Your task to perform on an android device: Search for Italian restaurants on Maps Image 0: 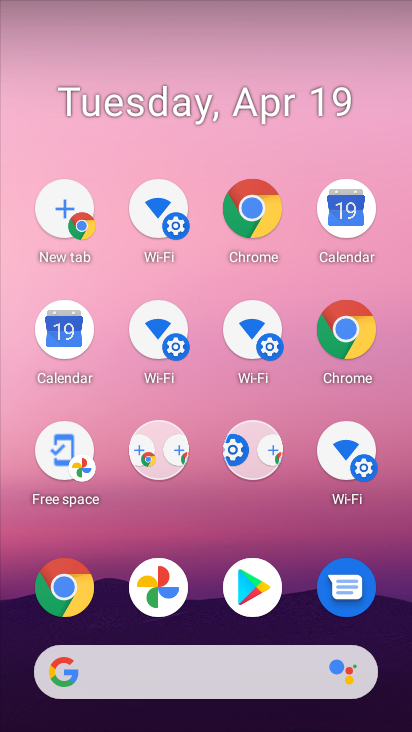
Step 0: click (70, 573)
Your task to perform on an android device: Search for Italian restaurants on Maps Image 1: 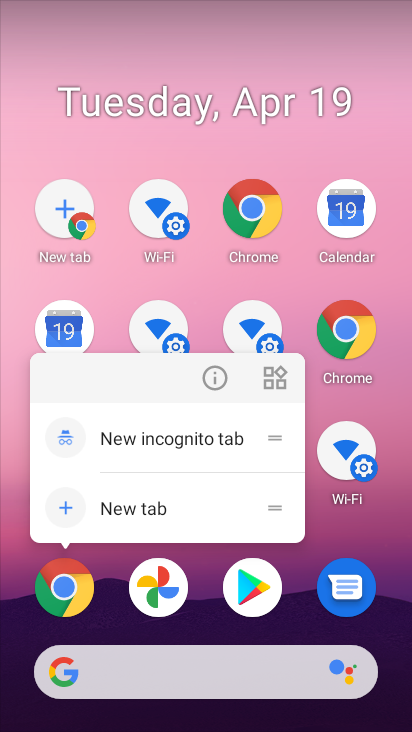
Step 1: click (70, 573)
Your task to perform on an android device: Search for Italian restaurants on Maps Image 2: 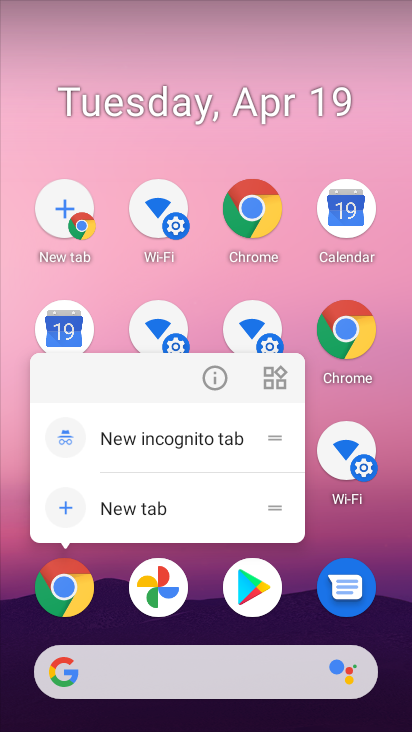
Step 2: click (56, 593)
Your task to perform on an android device: Search for Italian restaurants on Maps Image 3: 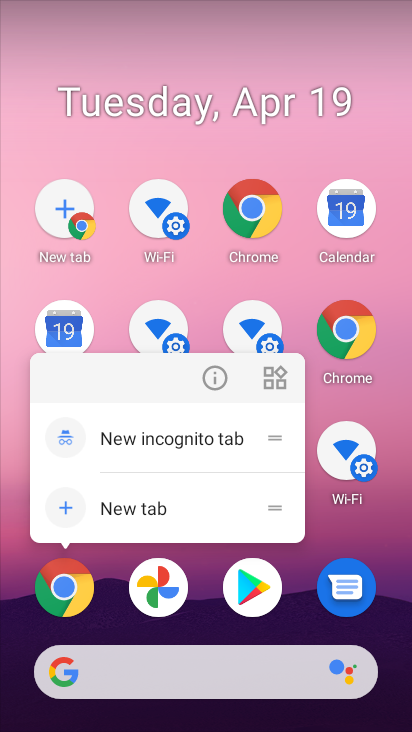
Step 3: click (70, 601)
Your task to perform on an android device: Search for Italian restaurants on Maps Image 4: 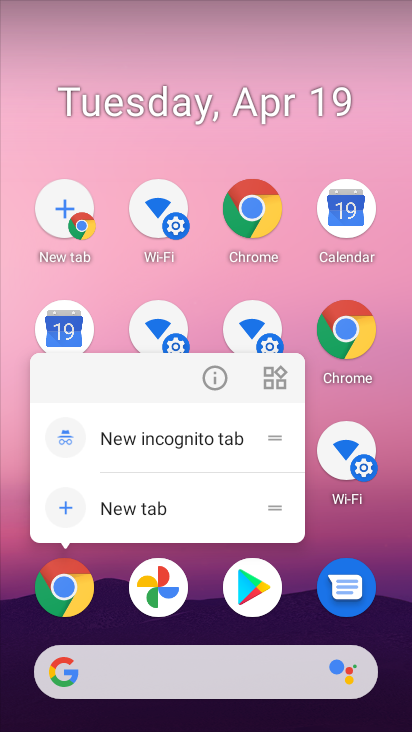
Step 4: click (349, 327)
Your task to perform on an android device: Search for Italian restaurants on Maps Image 5: 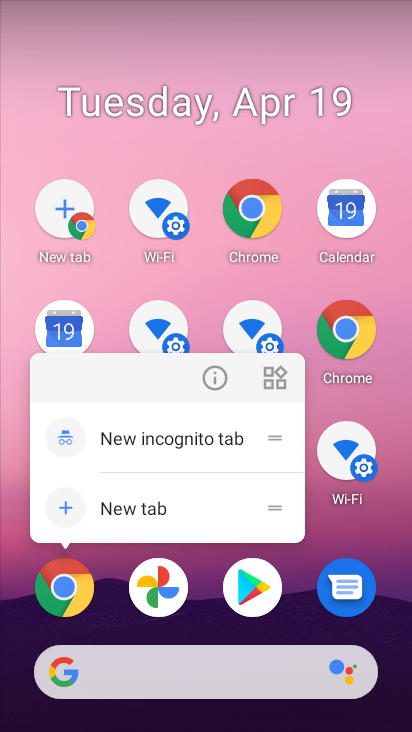
Step 5: click (356, 337)
Your task to perform on an android device: Search for Italian restaurants on Maps Image 6: 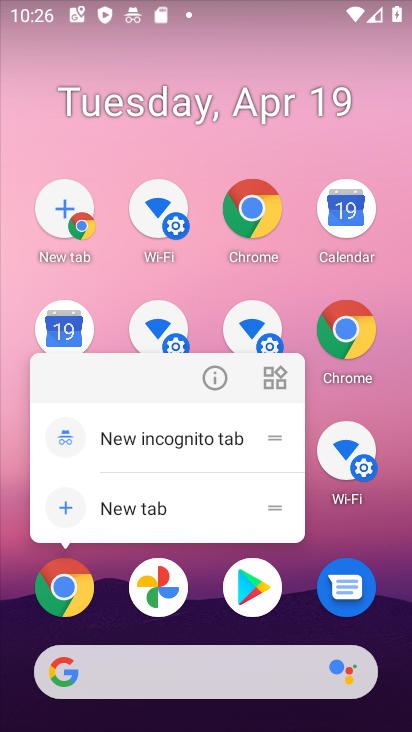
Step 6: click (357, 338)
Your task to perform on an android device: Search for Italian restaurants on Maps Image 7: 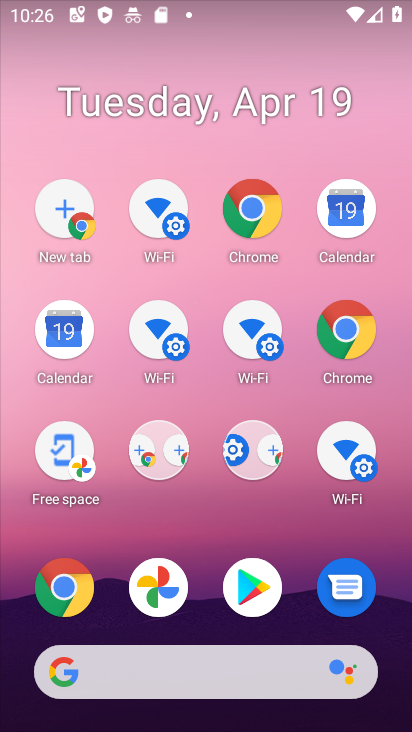
Step 7: click (333, 327)
Your task to perform on an android device: Search for Italian restaurants on Maps Image 8: 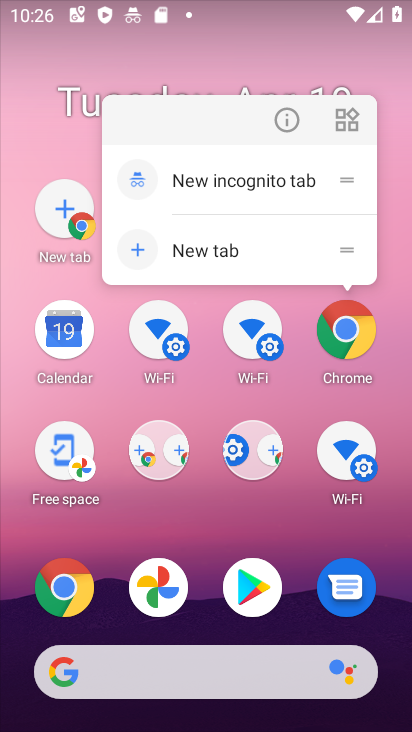
Step 8: click (351, 337)
Your task to perform on an android device: Search for Italian restaurants on Maps Image 9: 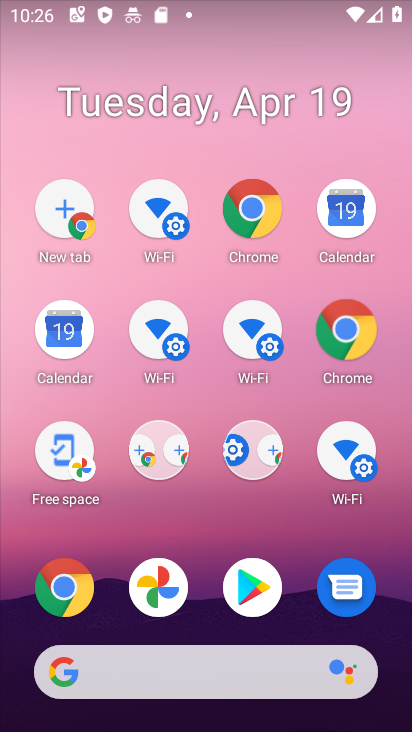
Step 9: click (343, 324)
Your task to perform on an android device: Search for Italian restaurants on Maps Image 10: 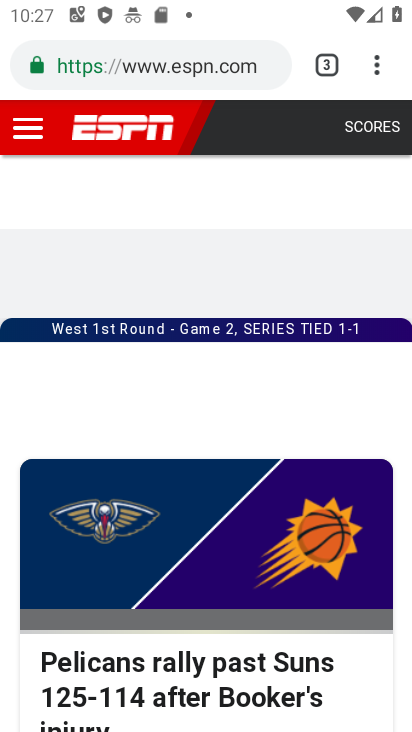
Step 10: press home button
Your task to perform on an android device: Search for Italian restaurants on Maps Image 11: 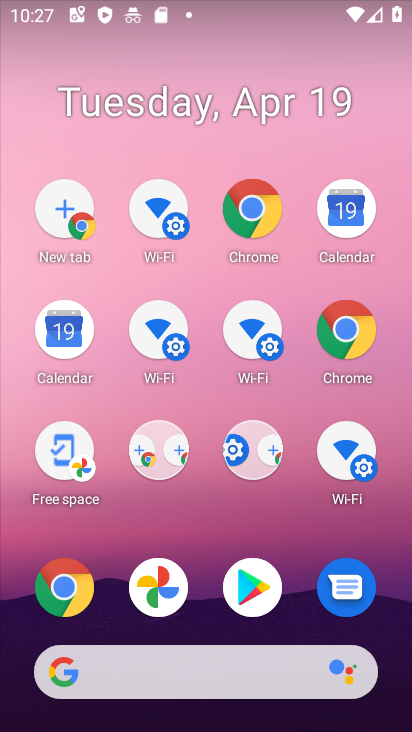
Step 11: drag from (182, 369) to (141, 204)
Your task to perform on an android device: Search for Italian restaurants on Maps Image 12: 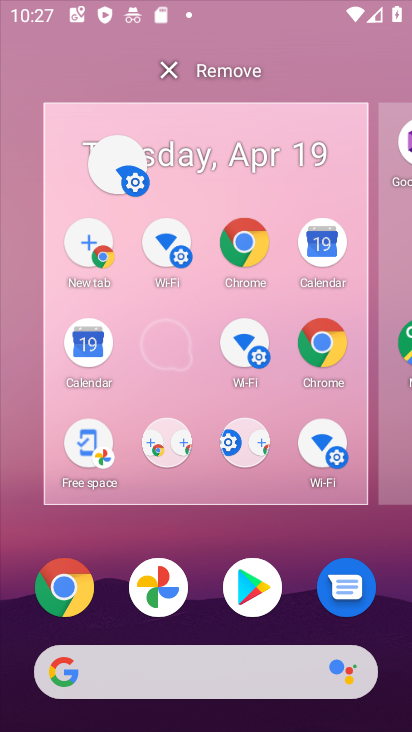
Step 12: drag from (198, 487) to (210, 146)
Your task to perform on an android device: Search for Italian restaurants on Maps Image 13: 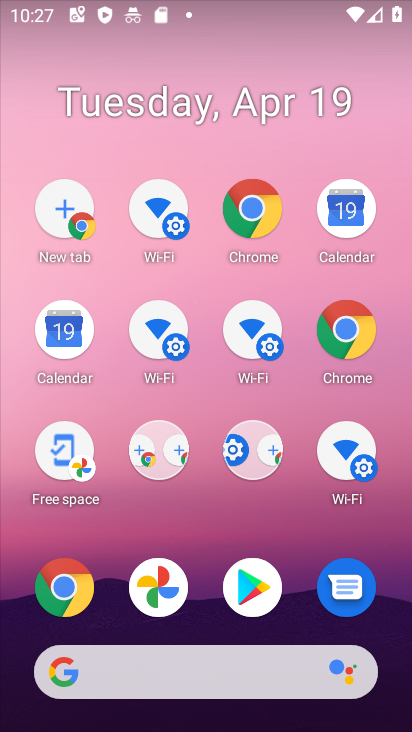
Step 13: drag from (132, 544) to (33, 134)
Your task to perform on an android device: Search for Italian restaurants on Maps Image 14: 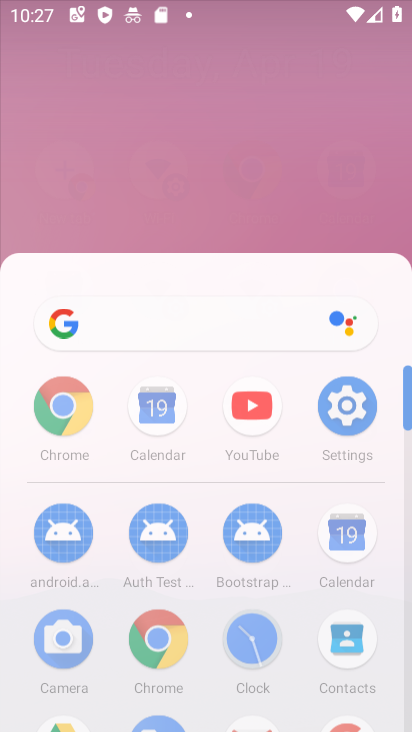
Step 14: drag from (239, 413) to (127, 42)
Your task to perform on an android device: Search for Italian restaurants on Maps Image 15: 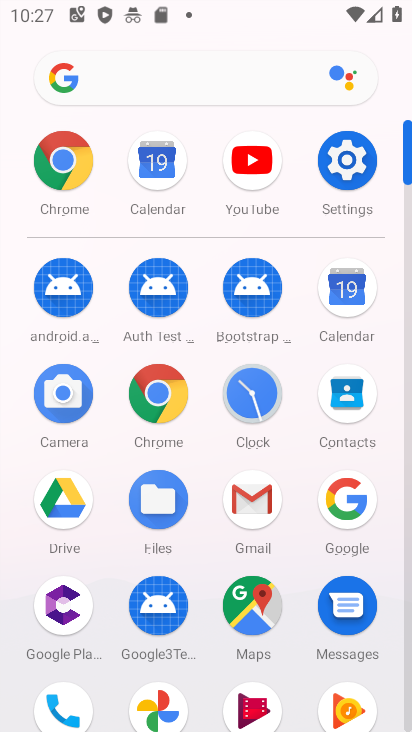
Step 15: click (254, 600)
Your task to perform on an android device: Search for Italian restaurants on Maps Image 16: 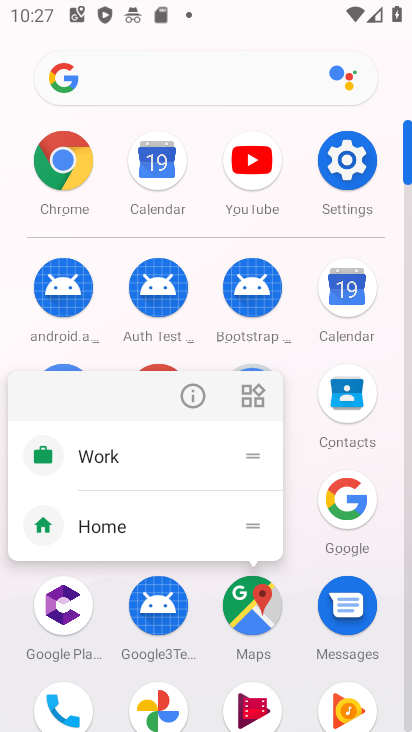
Step 16: click (268, 606)
Your task to perform on an android device: Search for Italian restaurants on Maps Image 17: 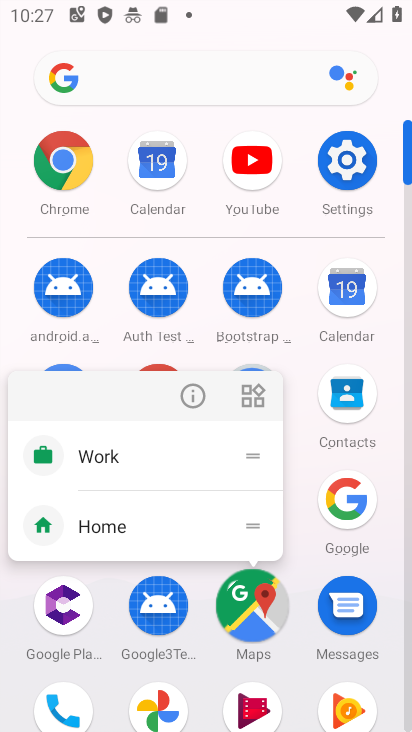
Step 17: click (268, 606)
Your task to perform on an android device: Search for Italian restaurants on Maps Image 18: 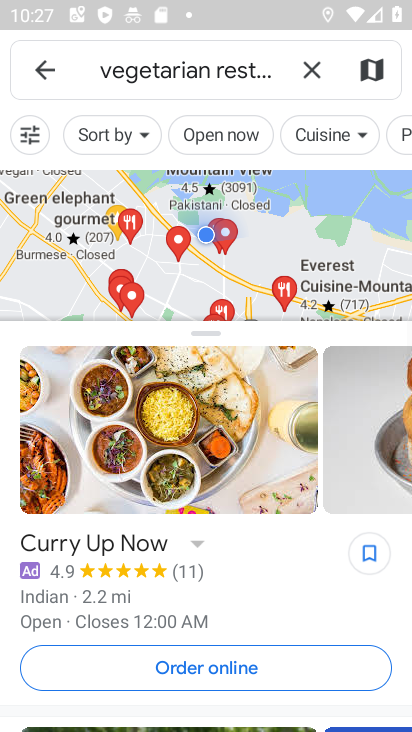
Step 18: click (116, 70)
Your task to perform on an android device: Search for Italian restaurants on Maps Image 19: 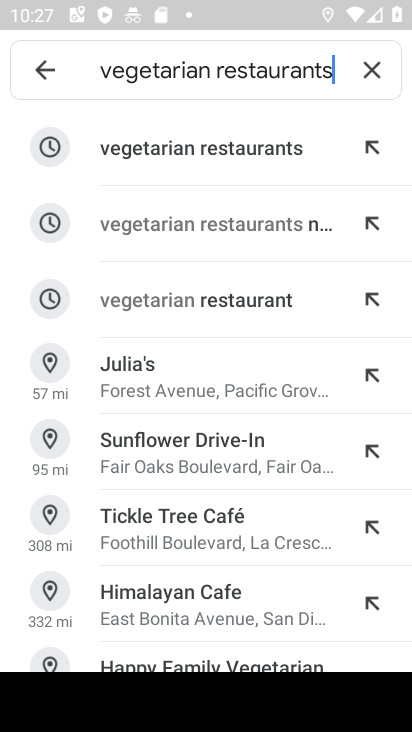
Step 19: click (97, 73)
Your task to perform on an android device: Search for Italian restaurants on Maps Image 20: 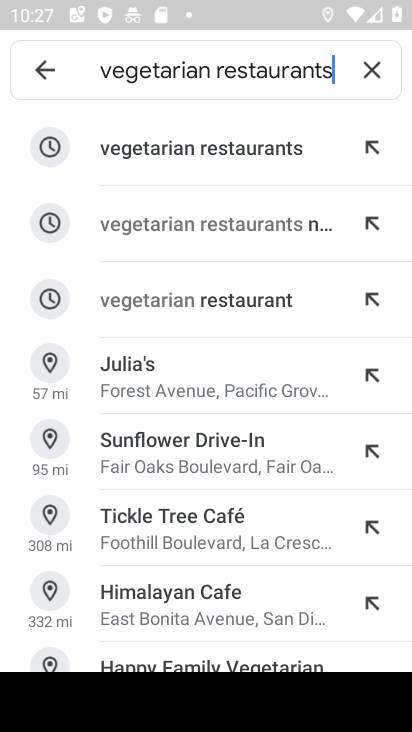
Step 20: click (115, 71)
Your task to perform on an android device: Search for Italian restaurants on Maps Image 21: 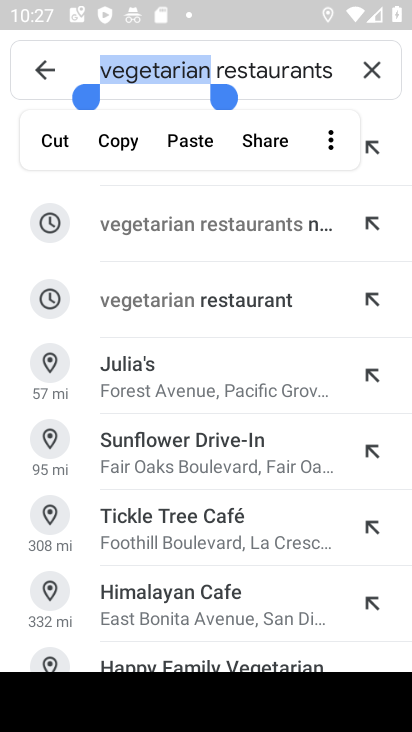
Step 21: click (370, 70)
Your task to perform on an android device: Search for Italian restaurants on Maps Image 22: 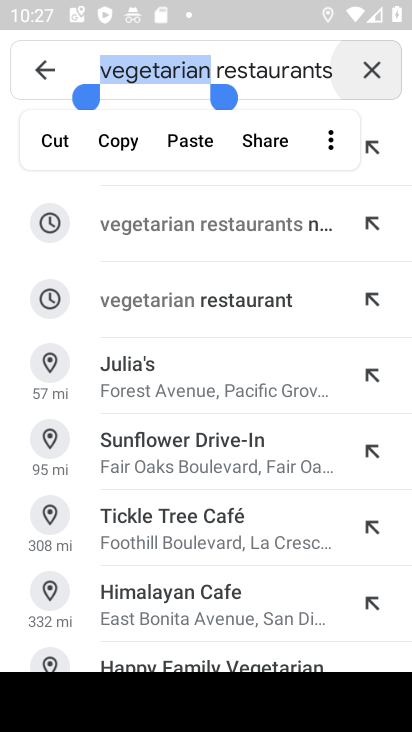
Step 22: click (370, 75)
Your task to perform on an android device: Search for Italian restaurants on Maps Image 23: 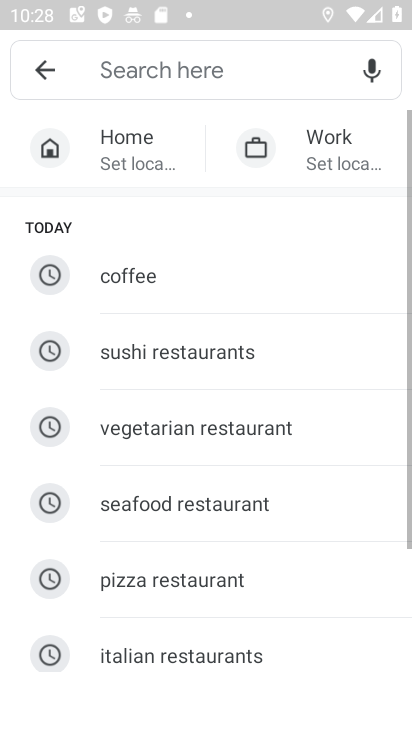
Step 23: click (115, 76)
Your task to perform on an android device: Search for Italian restaurants on Maps Image 24: 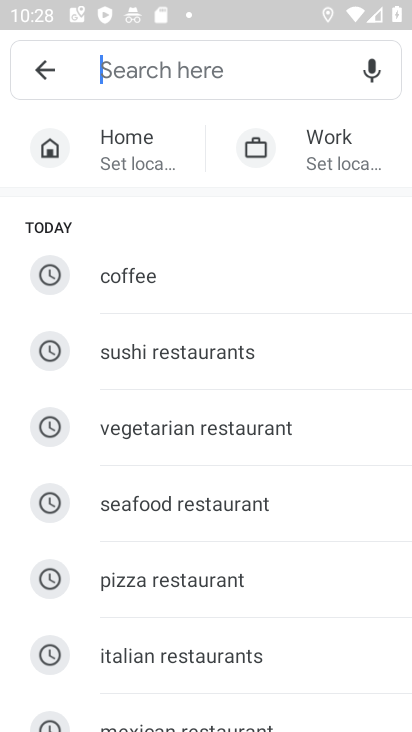
Step 24: click (154, 661)
Your task to perform on an android device: Search for Italian restaurants on Maps Image 25: 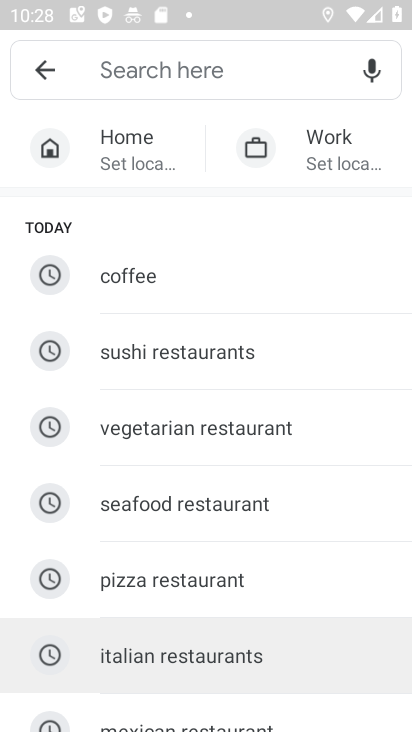
Step 25: click (155, 660)
Your task to perform on an android device: Search for Italian restaurants on Maps Image 26: 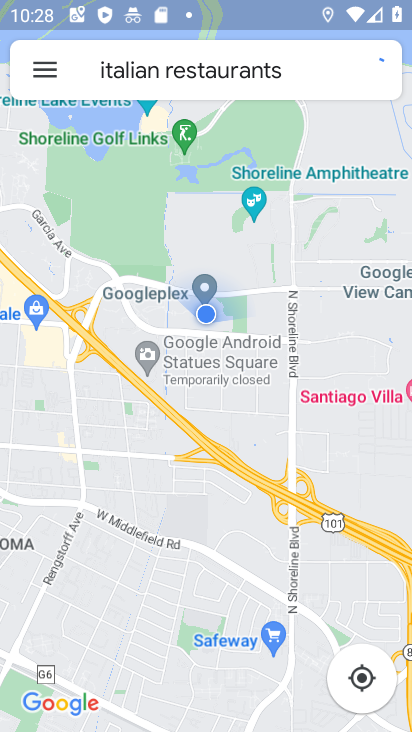
Step 26: task complete